Your task to perform on an android device: Go to location settings Image 0: 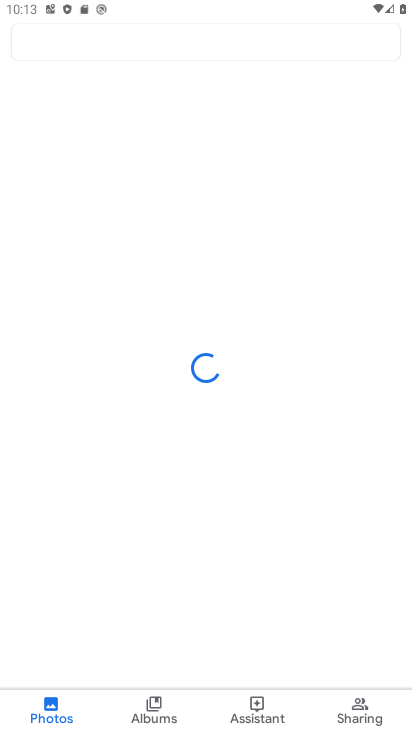
Step 0: press home button
Your task to perform on an android device: Go to location settings Image 1: 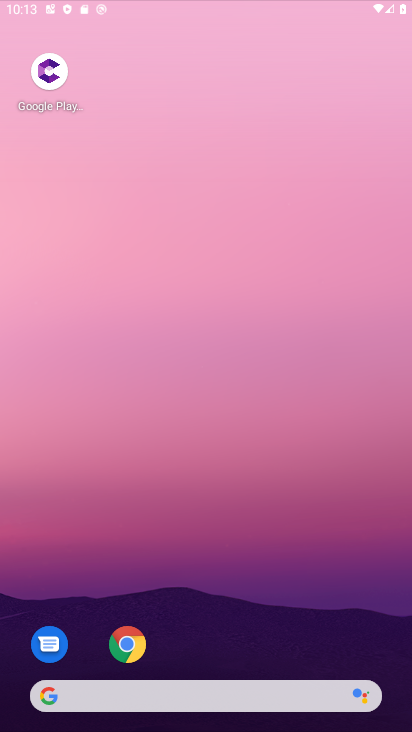
Step 1: drag from (378, 641) to (251, 87)
Your task to perform on an android device: Go to location settings Image 2: 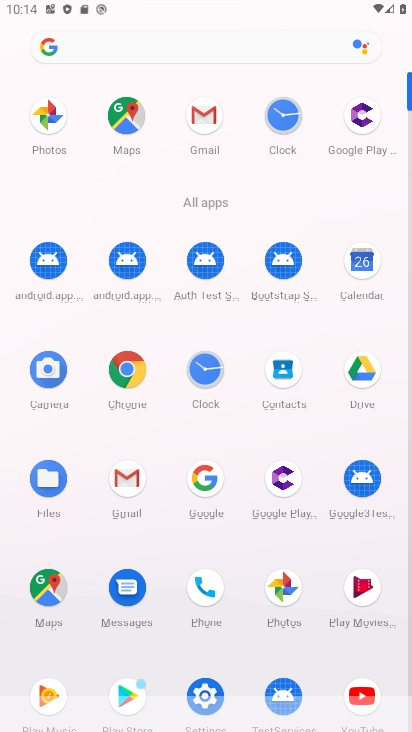
Step 2: click (209, 683)
Your task to perform on an android device: Go to location settings Image 3: 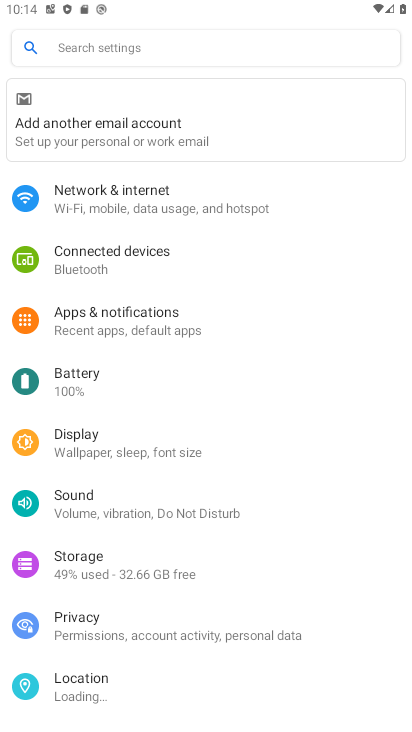
Step 3: click (145, 688)
Your task to perform on an android device: Go to location settings Image 4: 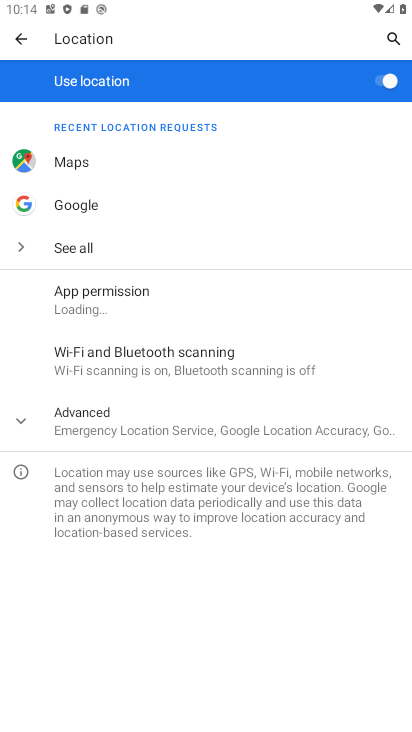
Step 4: task complete